Your task to perform on an android device: Go to internet settings Image 0: 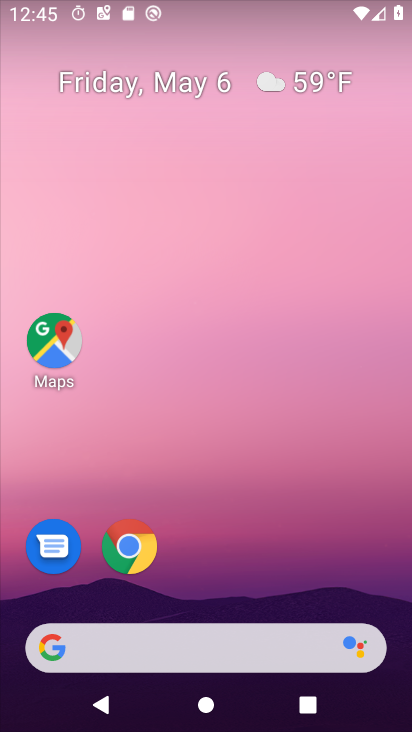
Step 0: drag from (305, 568) to (302, 129)
Your task to perform on an android device: Go to internet settings Image 1: 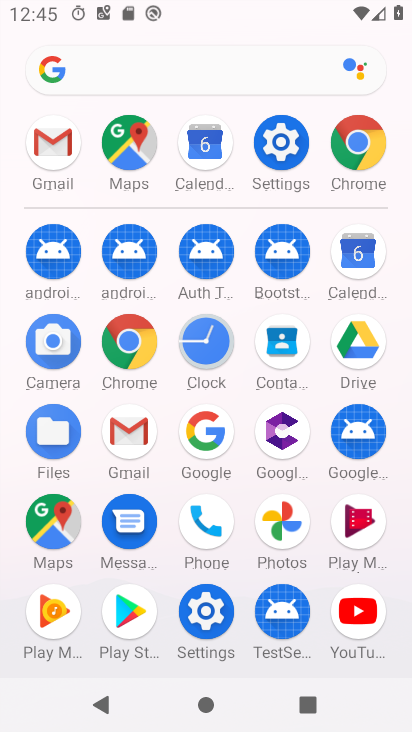
Step 1: click (281, 142)
Your task to perform on an android device: Go to internet settings Image 2: 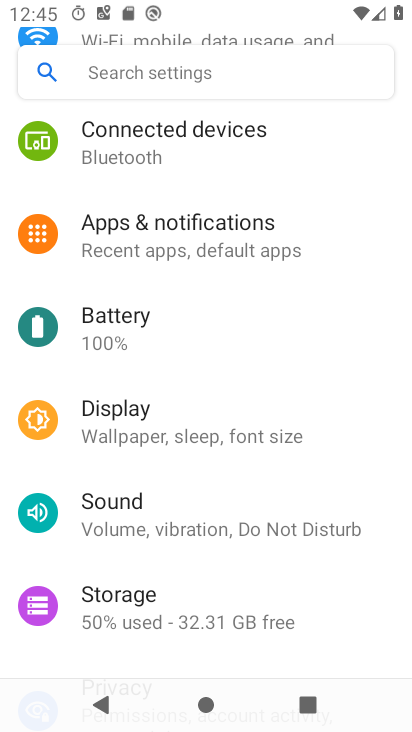
Step 2: drag from (231, 194) to (184, 434)
Your task to perform on an android device: Go to internet settings Image 3: 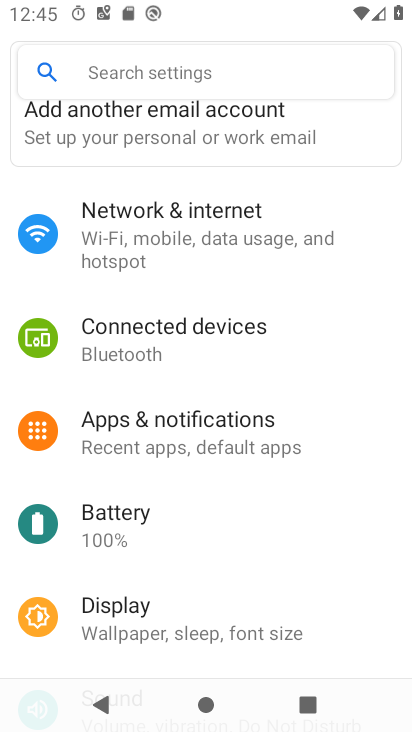
Step 3: click (189, 217)
Your task to perform on an android device: Go to internet settings Image 4: 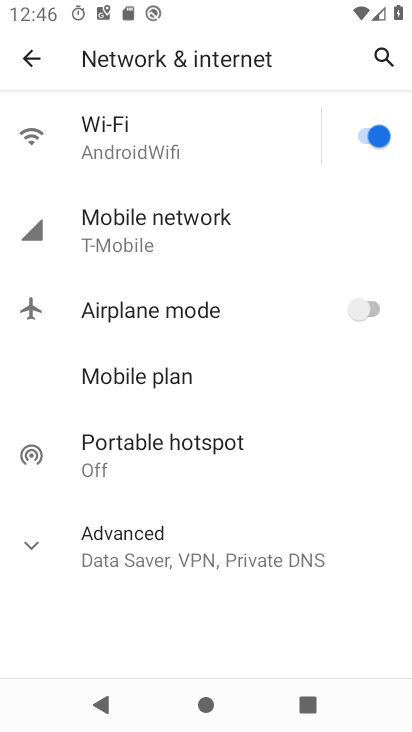
Step 4: task complete